Your task to perform on an android device: turn off wifi Image 0: 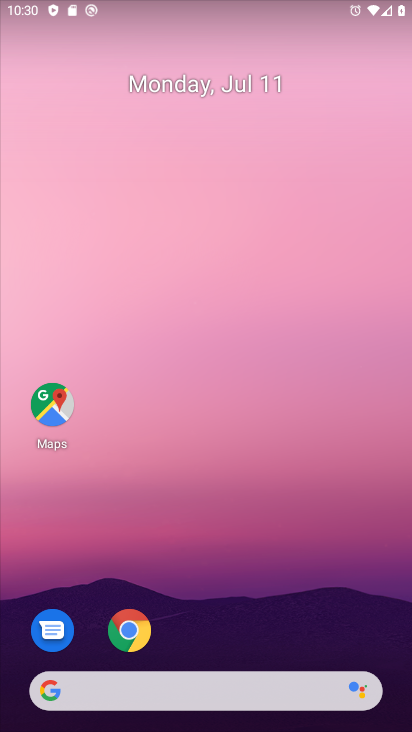
Step 0: drag from (321, 648) to (375, 0)
Your task to perform on an android device: turn off wifi Image 1: 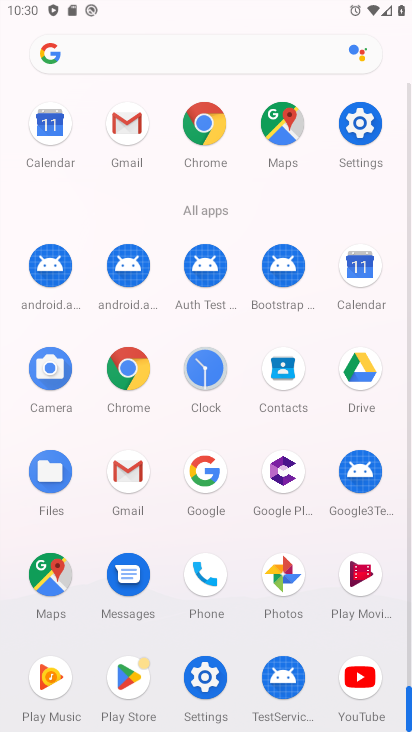
Step 1: click (366, 140)
Your task to perform on an android device: turn off wifi Image 2: 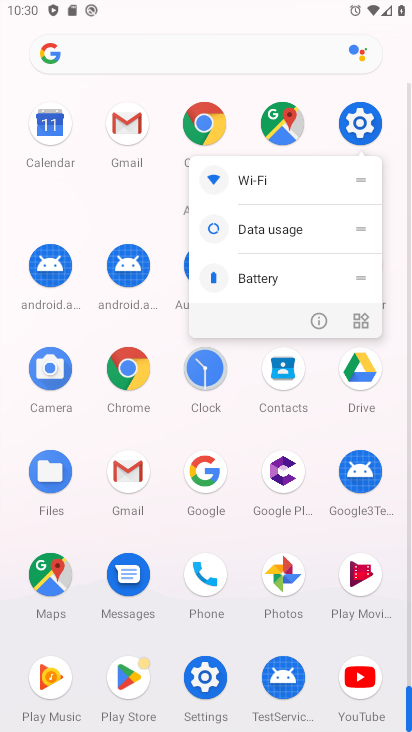
Step 2: click (361, 135)
Your task to perform on an android device: turn off wifi Image 3: 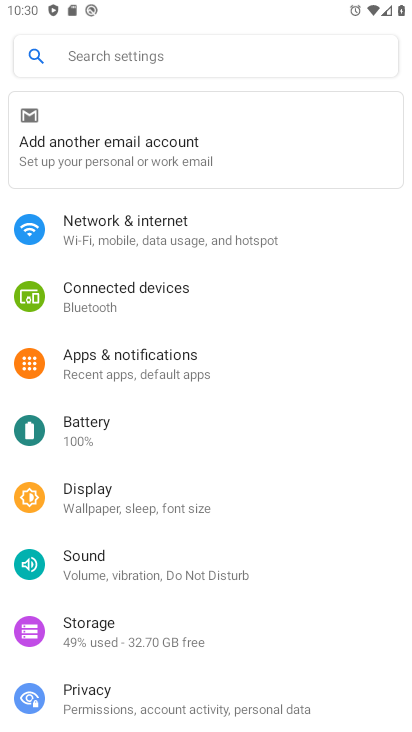
Step 3: click (141, 220)
Your task to perform on an android device: turn off wifi Image 4: 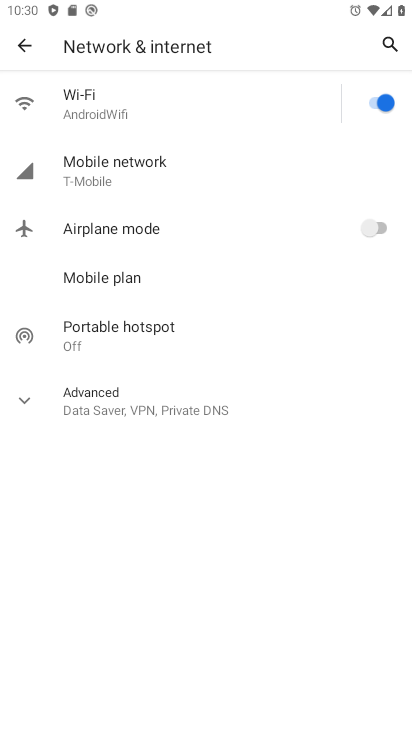
Step 4: click (376, 101)
Your task to perform on an android device: turn off wifi Image 5: 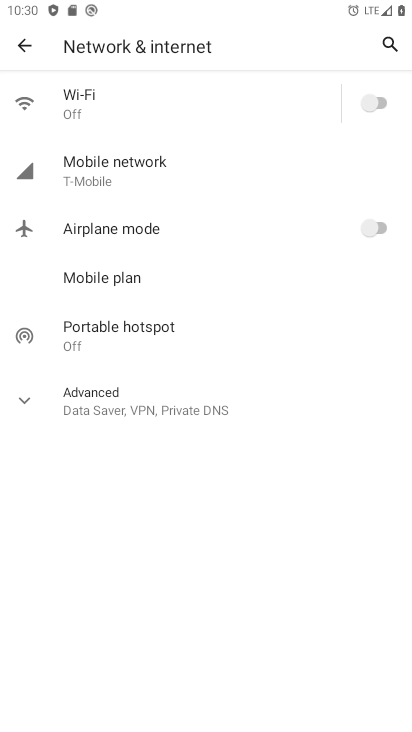
Step 5: task complete